Your task to perform on an android device: move an email to a new category in the gmail app Image 0: 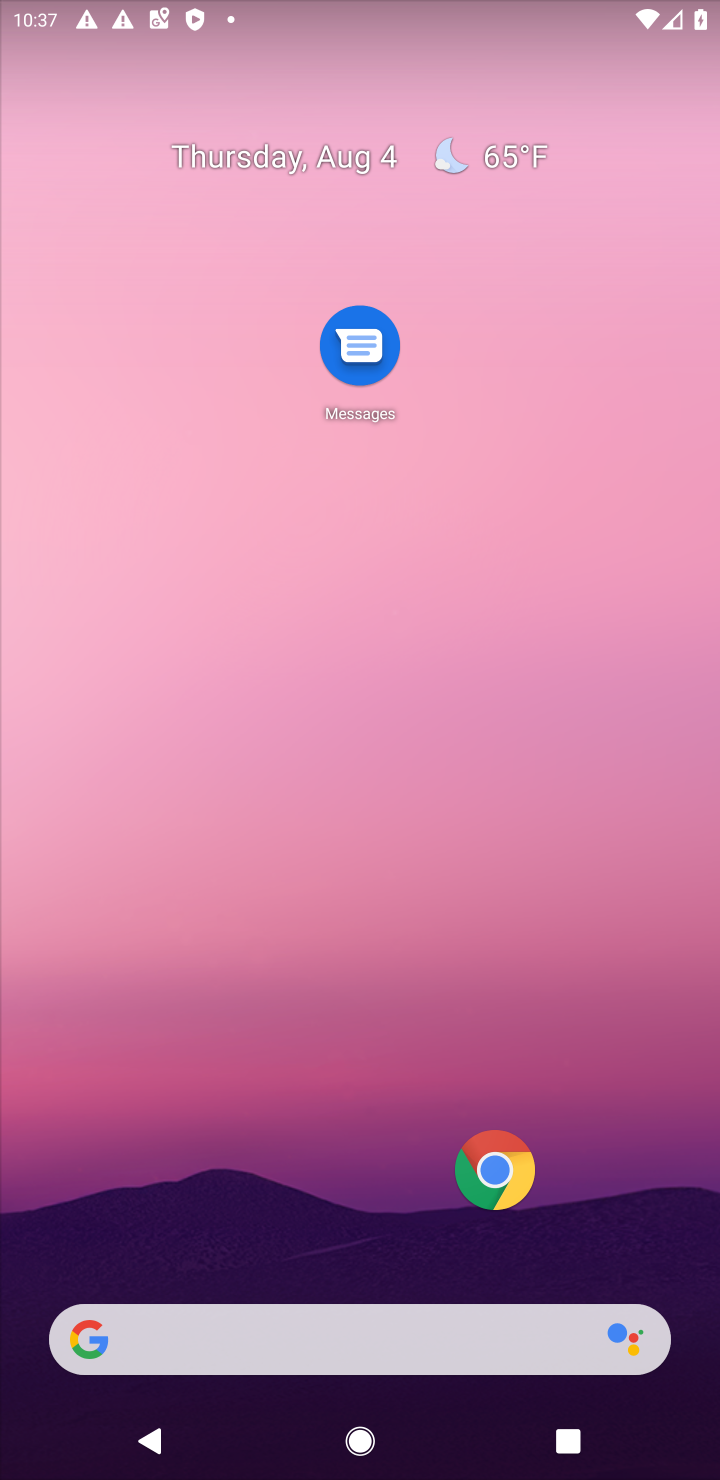
Step 0: drag from (435, 1205) to (466, 160)
Your task to perform on an android device: move an email to a new category in the gmail app Image 1: 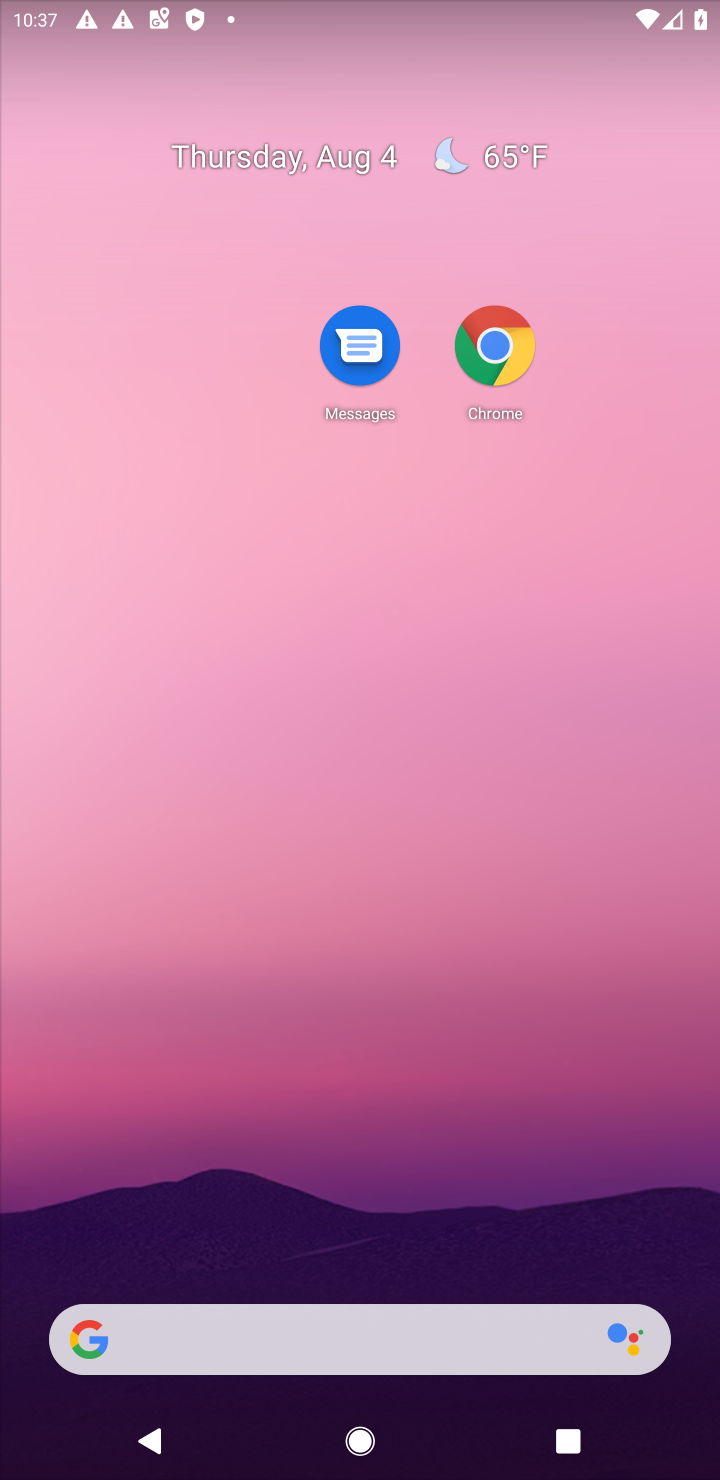
Step 1: drag from (459, 972) to (402, 61)
Your task to perform on an android device: move an email to a new category in the gmail app Image 2: 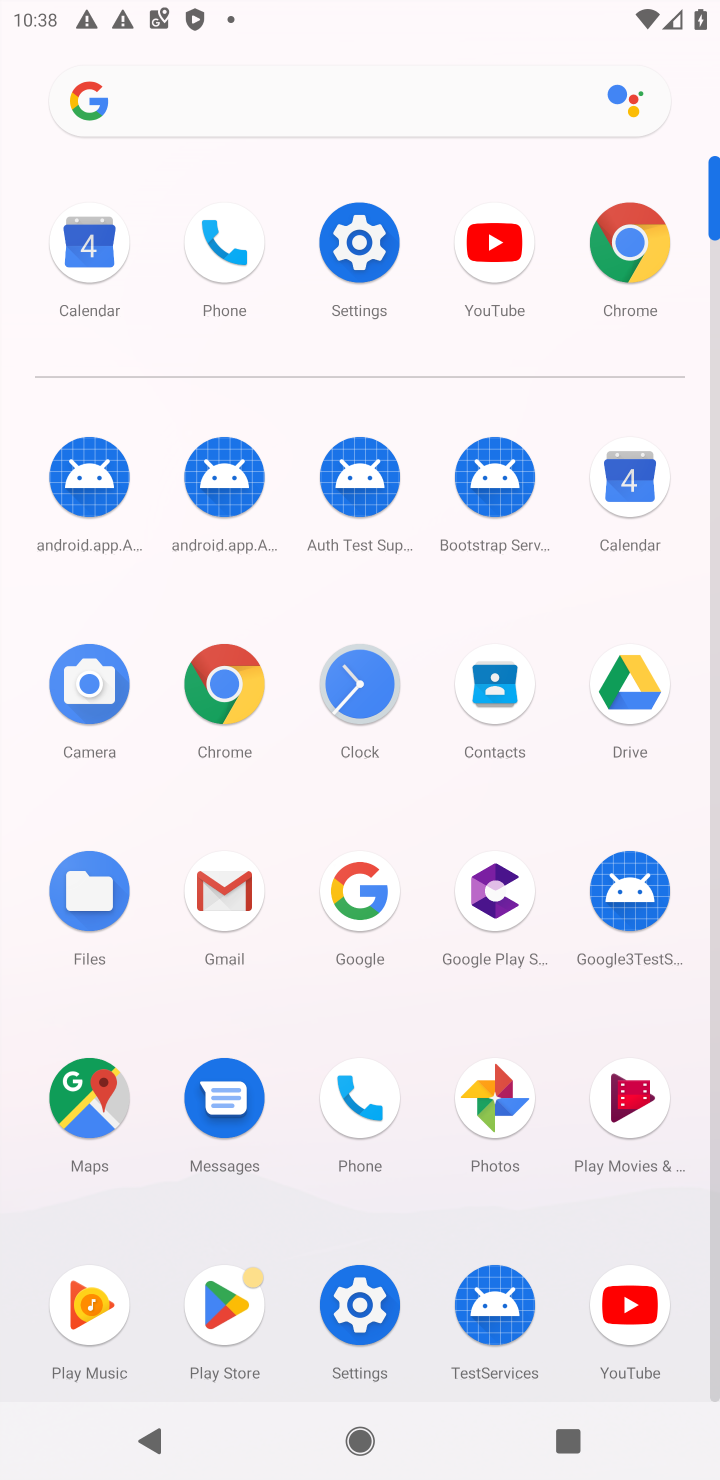
Step 2: click (229, 899)
Your task to perform on an android device: move an email to a new category in the gmail app Image 3: 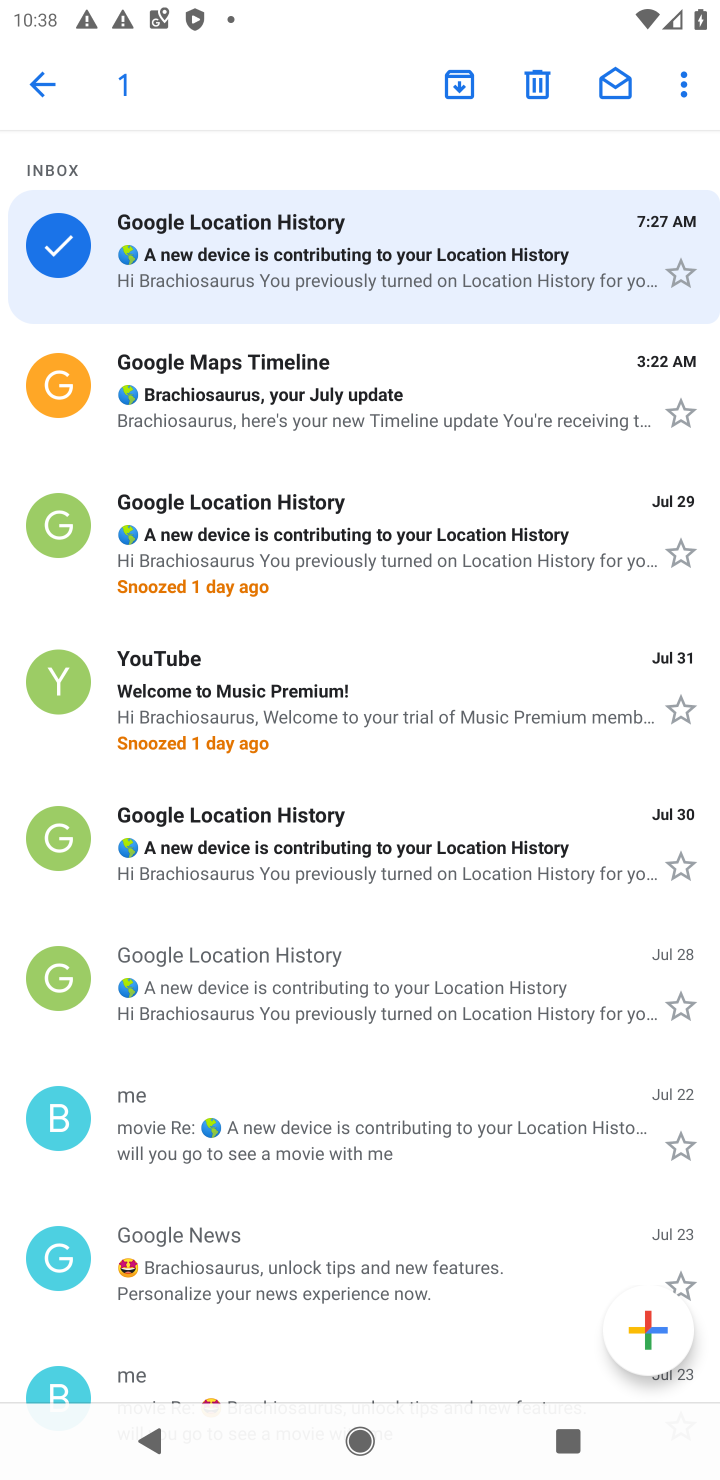
Step 3: click (46, 91)
Your task to perform on an android device: move an email to a new category in the gmail app Image 4: 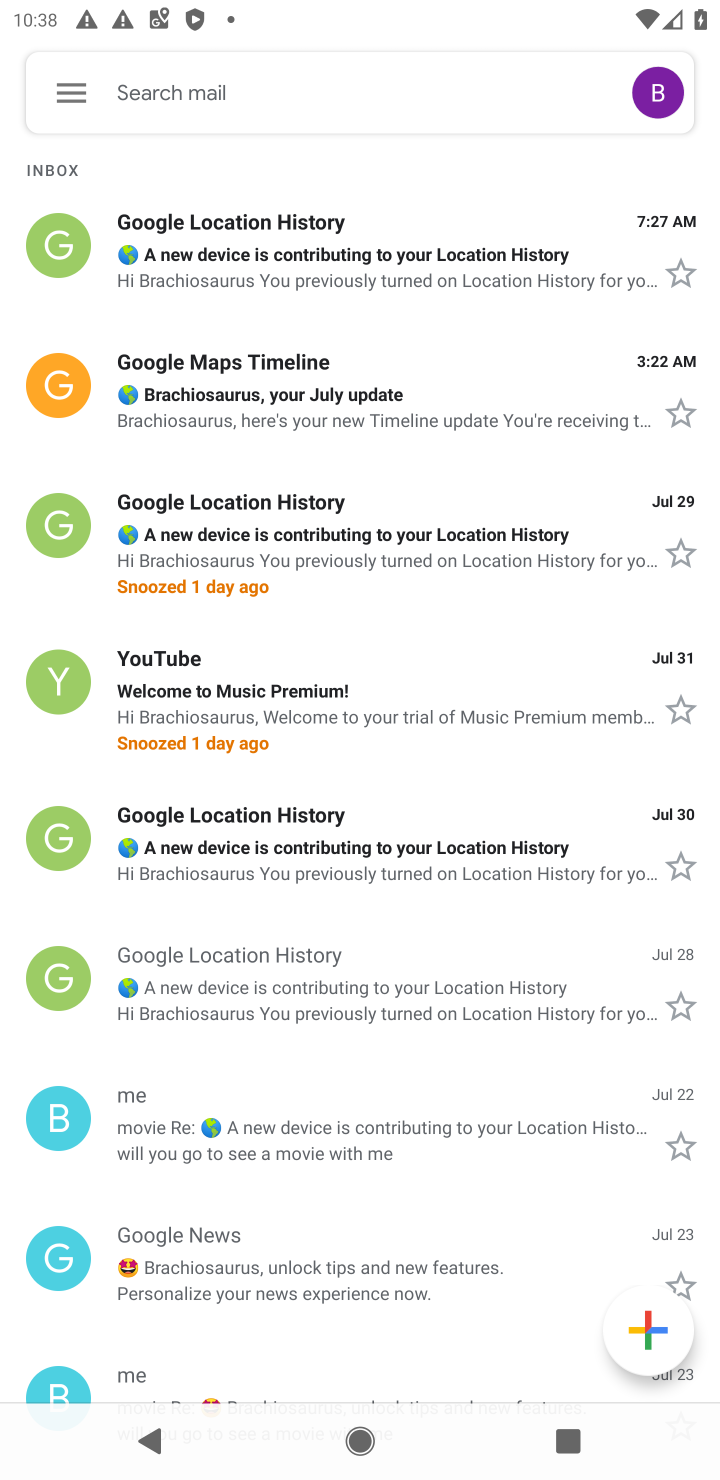
Step 4: click (406, 265)
Your task to perform on an android device: move an email to a new category in the gmail app Image 5: 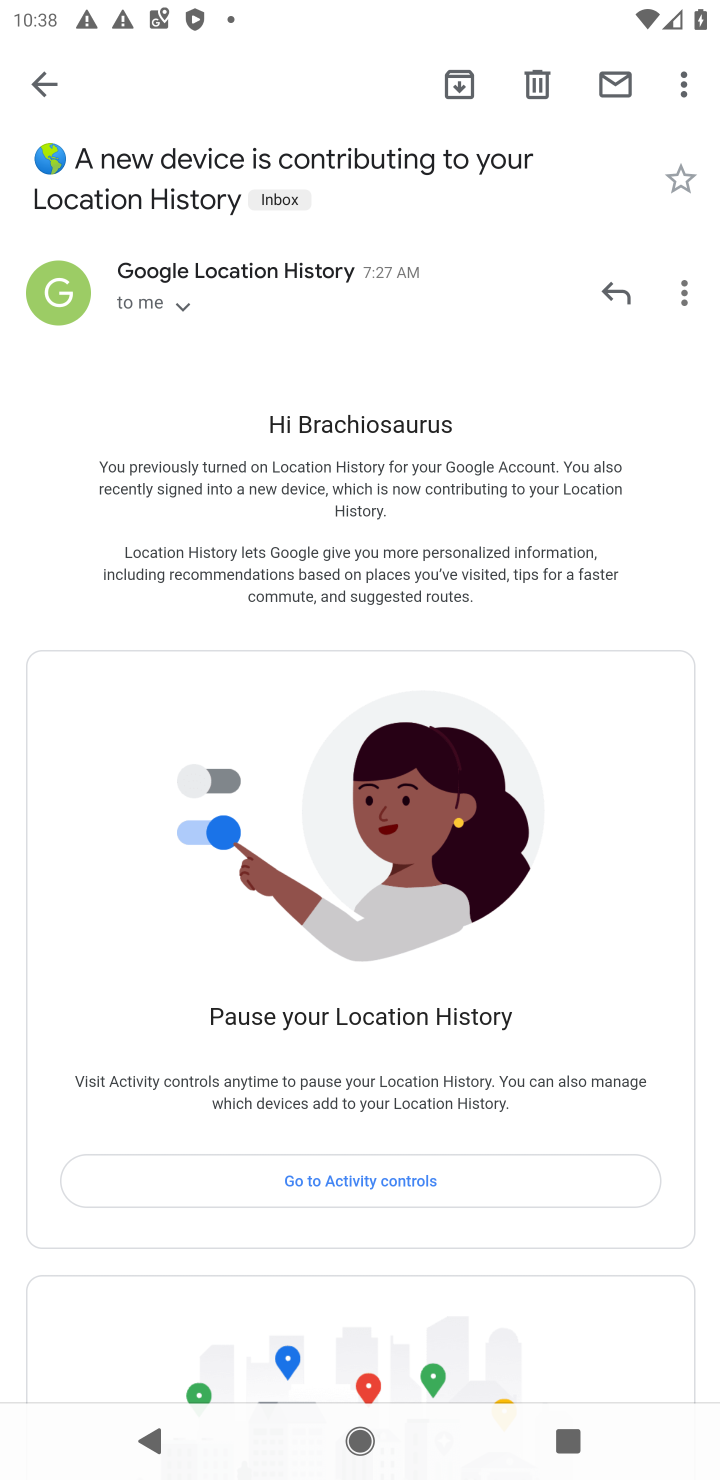
Step 5: click (667, 167)
Your task to perform on an android device: move an email to a new category in the gmail app Image 6: 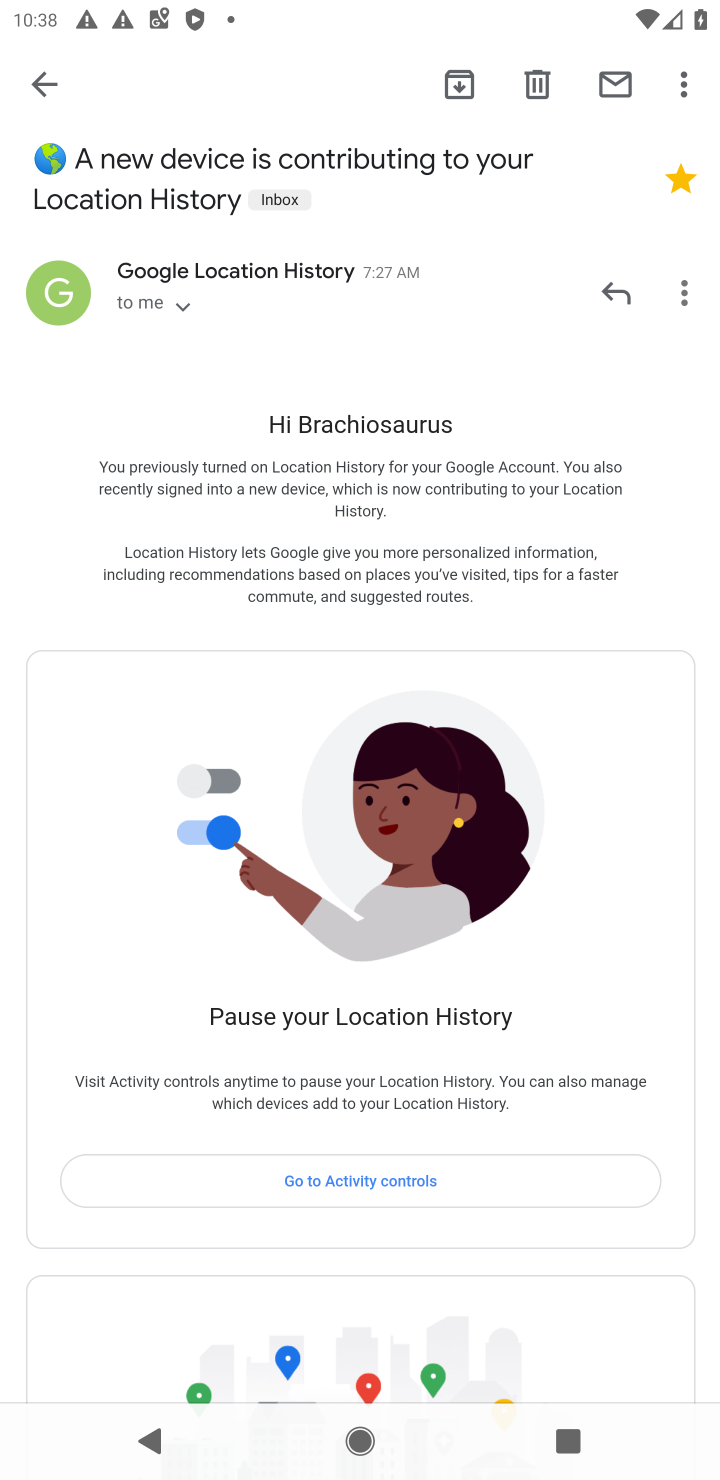
Step 6: task complete